Your task to perform on an android device: create a new album in the google photos Image 0: 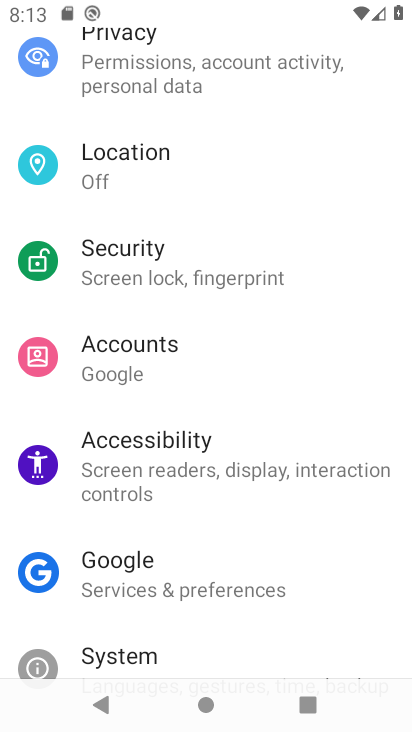
Step 0: press back button
Your task to perform on an android device: create a new album in the google photos Image 1: 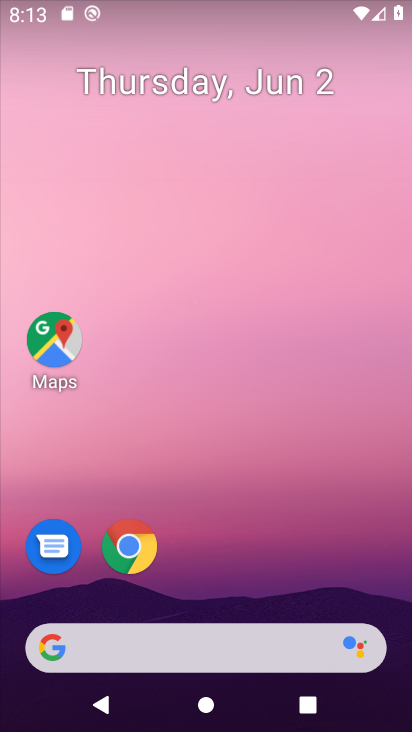
Step 1: drag from (226, 630) to (128, 153)
Your task to perform on an android device: create a new album in the google photos Image 2: 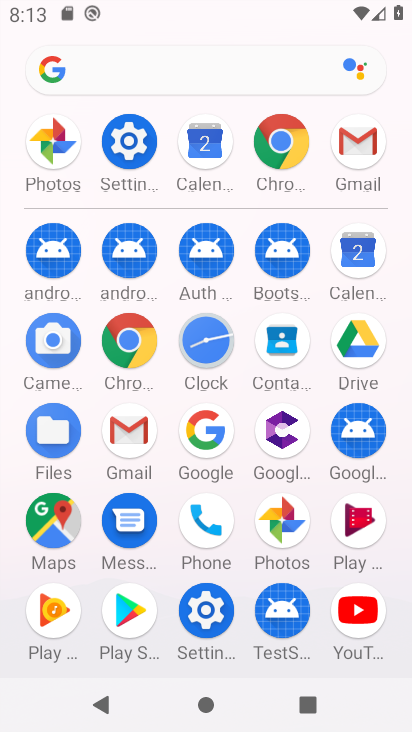
Step 2: click (273, 526)
Your task to perform on an android device: create a new album in the google photos Image 3: 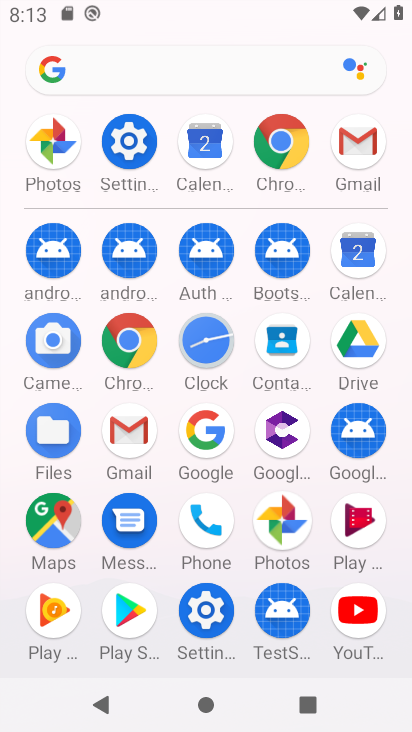
Step 3: click (273, 525)
Your task to perform on an android device: create a new album in the google photos Image 4: 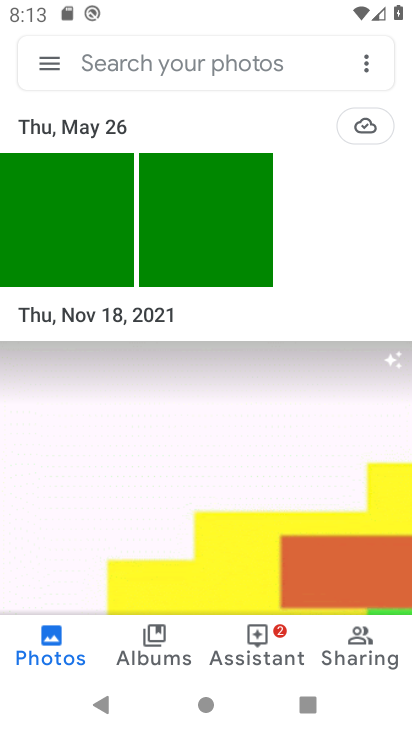
Step 4: click (365, 65)
Your task to perform on an android device: create a new album in the google photos Image 5: 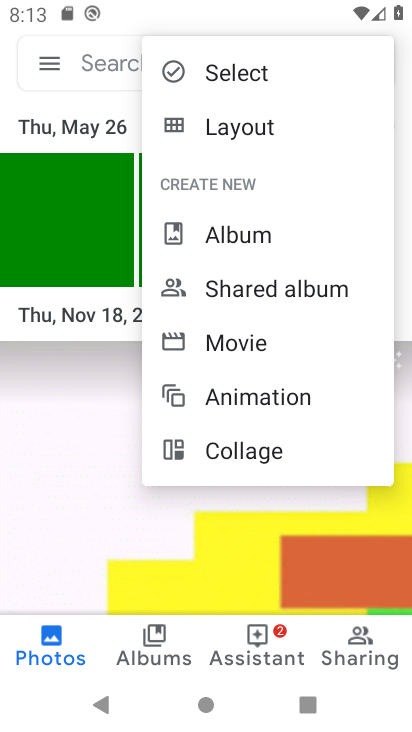
Step 5: click (241, 236)
Your task to perform on an android device: create a new album in the google photos Image 6: 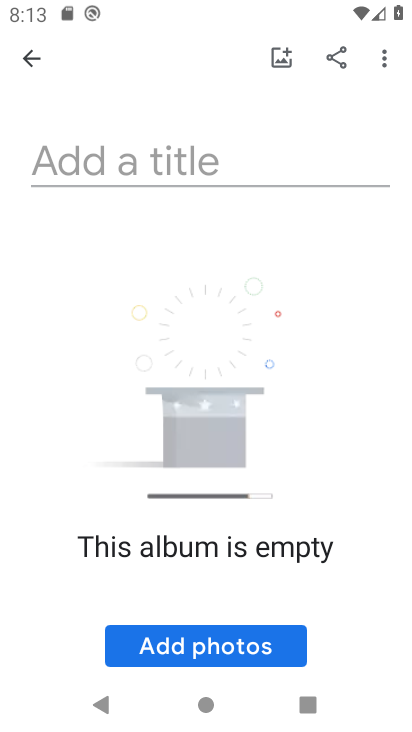
Step 6: click (56, 162)
Your task to perform on an android device: create a new album in the google photos Image 7: 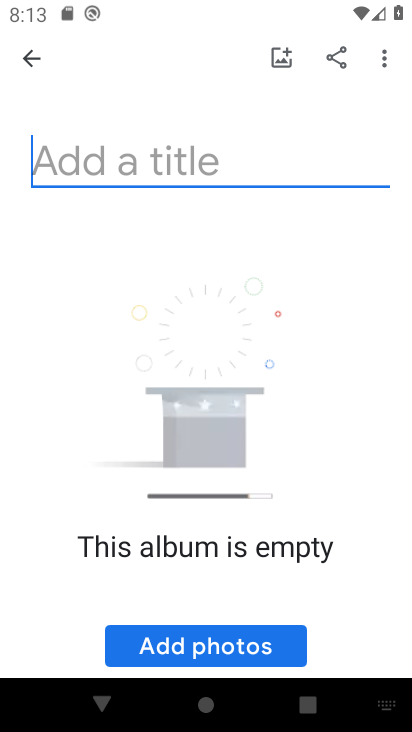
Step 7: type "ram"
Your task to perform on an android device: create a new album in the google photos Image 8: 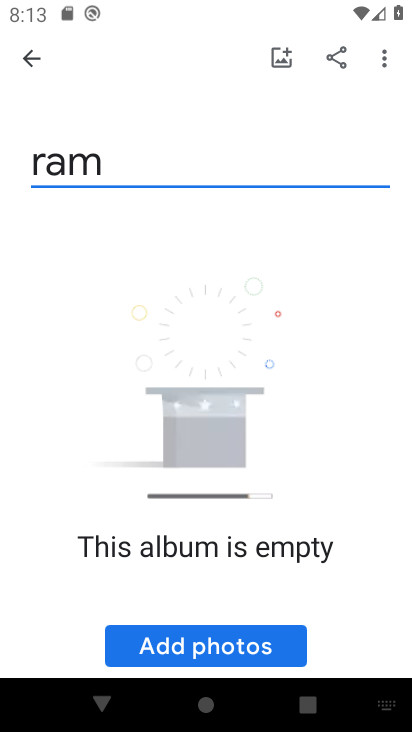
Step 8: click (192, 644)
Your task to perform on an android device: create a new album in the google photos Image 9: 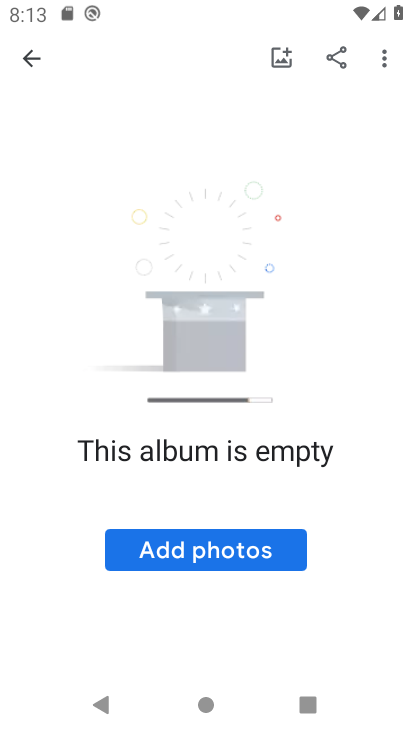
Step 9: click (181, 547)
Your task to perform on an android device: create a new album in the google photos Image 10: 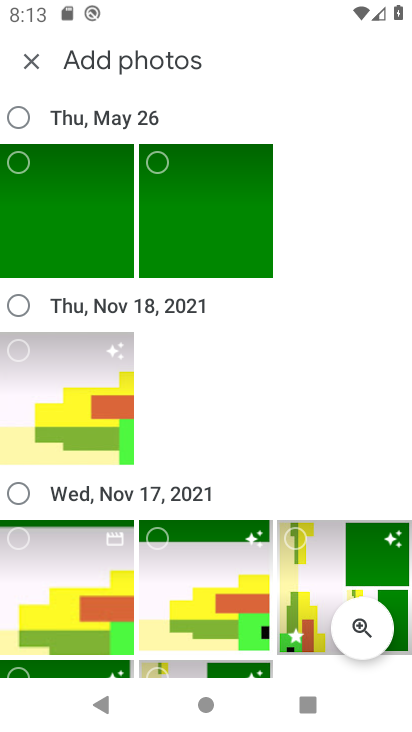
Step 10: click (13, 114)
Your task to perform on an android device: create a new album in the google photos Image 11: 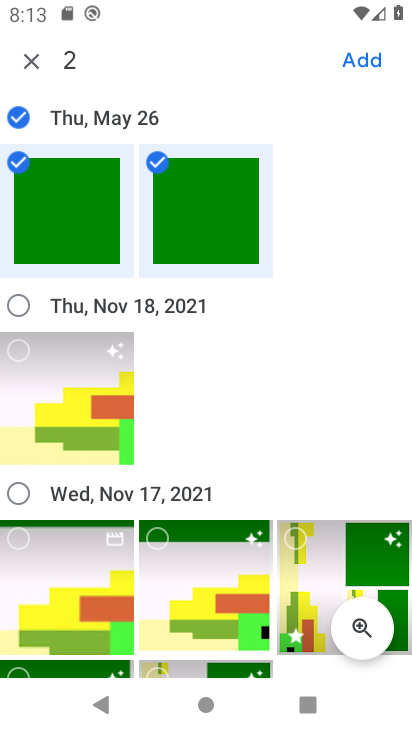
Step 11: click (371, 53)
Your task to perform on an android device: create a new album in the google photos Image 12: 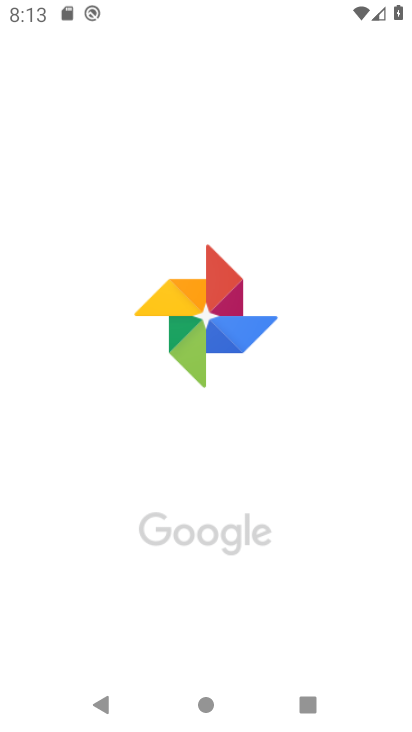
Step 12: task complete